Your task to perform on an android device: Show me popular videos on Youtube Image 0: 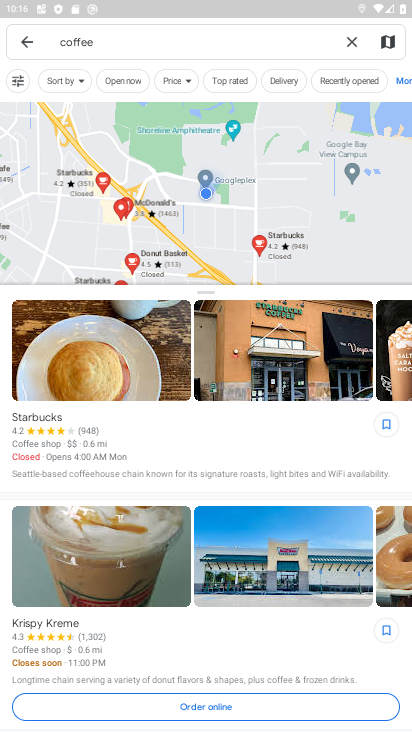
Step 0: press home button
Your task to perform on an android device: Show me popular videos on Youtube Image 1: 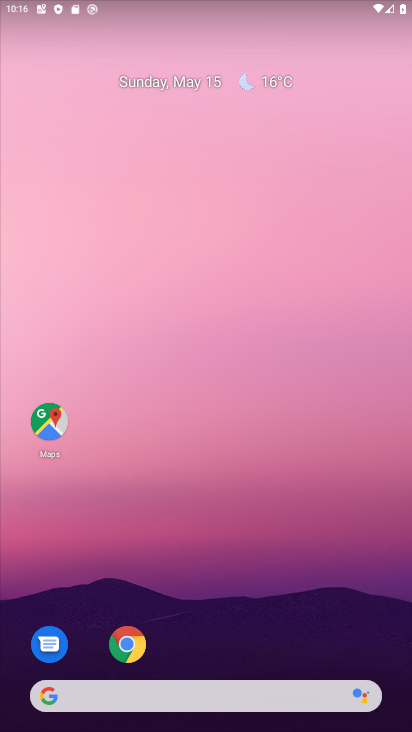
Step 1: drag from (258, 651) to (300, 0)
Your task to perform on an android device: Show me popular videos on Youtube Image 2: 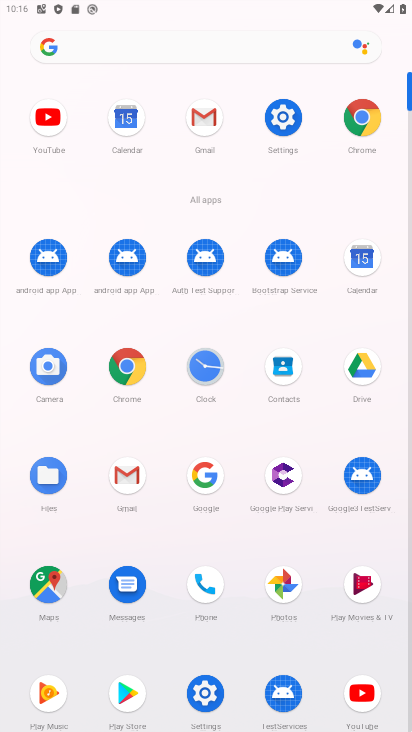
Step 2: click (41, 125)
Your task to perform on an android device: Show me popular videos on Youtube Image 3: 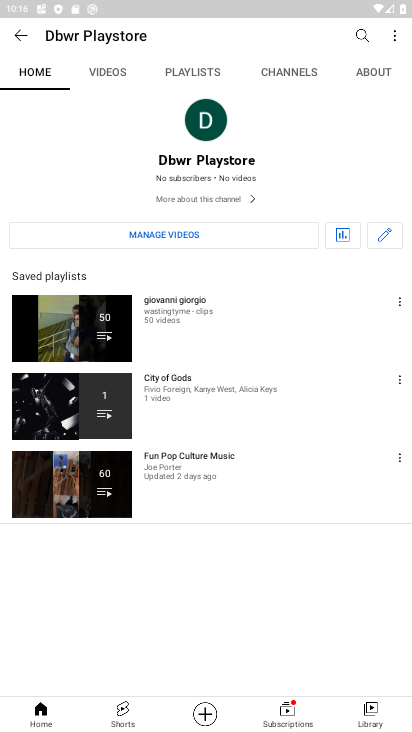
Step 3: click (27, 37)
Your task to perform on an android device: Show me popular videos on Youtube Image 4: 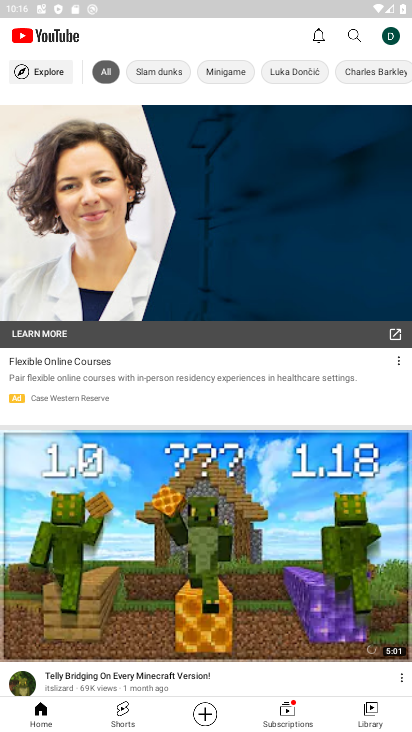
Step 4: click (55, 69)
Your task to perform on an android device: Show me popular videos on Youtube Image 5: 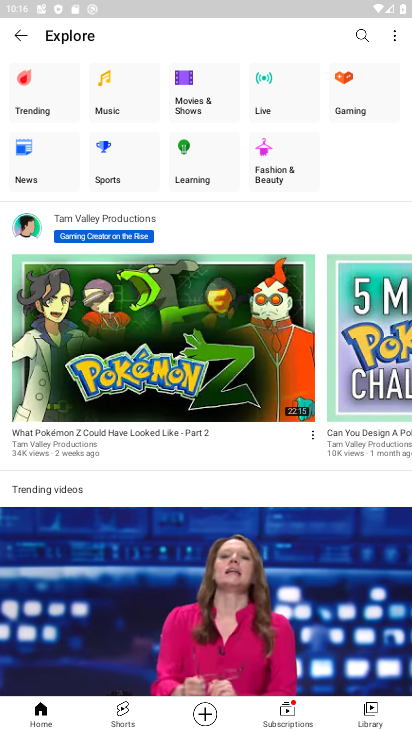
Step 5: click (53, 80)
Your task to perform on an android device: Show me popular videos on Youtube Image 6: 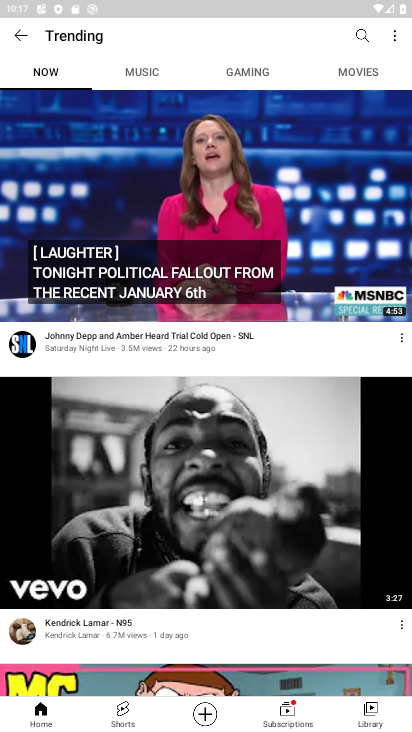
Step 6: task complete